Your task to perform on an android device: change the clock display to analog Image 0: 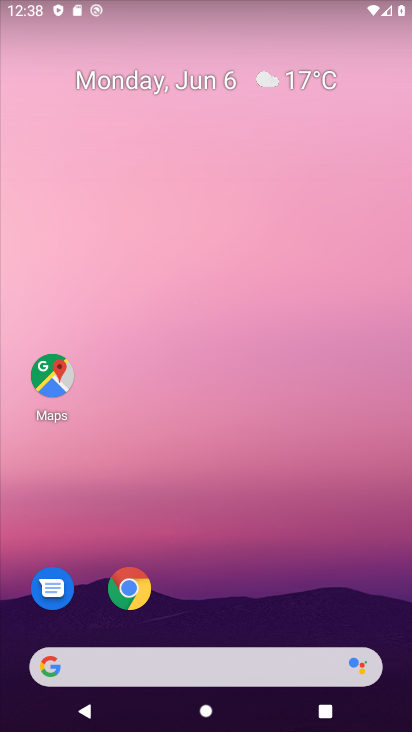
Step 0: press home button
Your task to perform on an android device: change the clock display to analog Image 1: 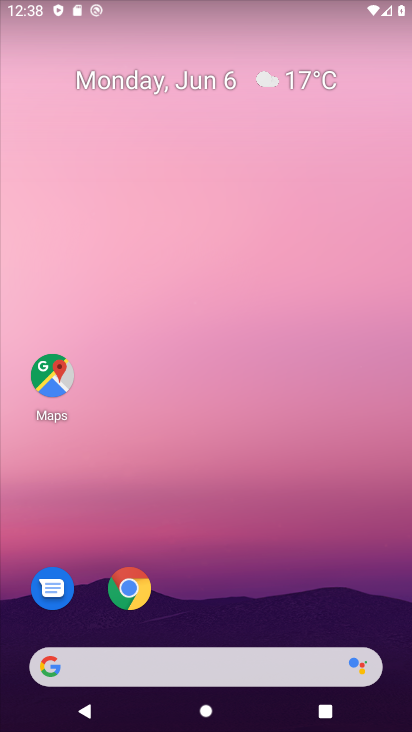
Step 1: click (292, 379)
Your task to perform on an android device: change the clock display to analog Image 2: 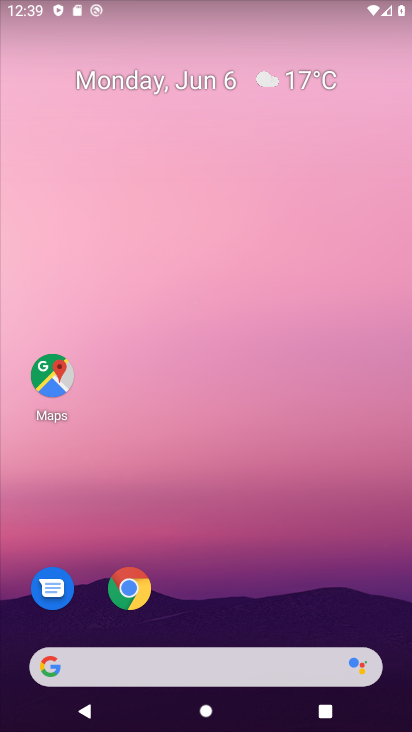
Step 2: drag from (272, 604) to (279, 78)
Your task to perform on an android device: change the clock display to analog Image 3: 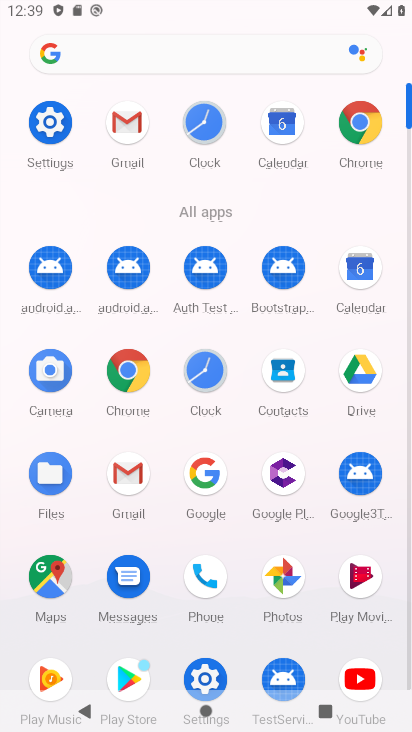
Step 3: click (199, 126)
Your task to perform on an android device: change the clock display to analog Image 4: 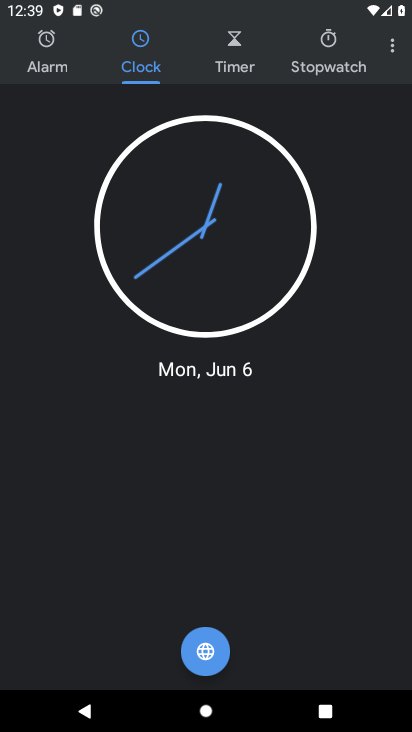
Step 4: click (389, 42)
Your task to perform on an android device: change the clock display to analog Image 5: 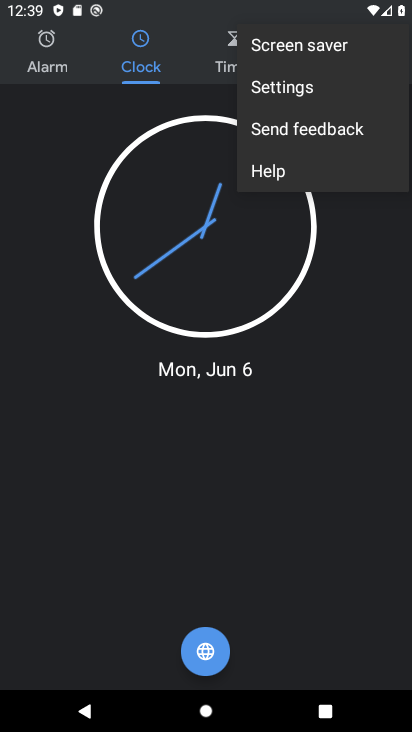
Step 5: click (288, 81)
Your task to perform on an android device: change the clock display to analog Image 6: 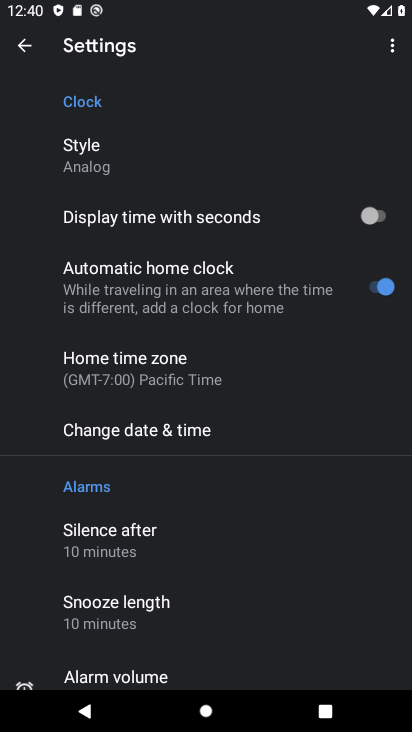
Step 6: task complete